Your task to perform on an android device: turn off improve location accuracy Image 0: 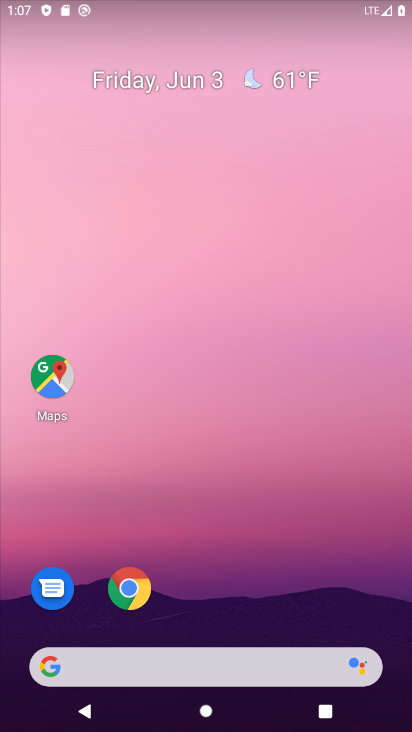
Step 0: press home button
Your task to perform on an android device: turn off improve location accuracy Image 1: 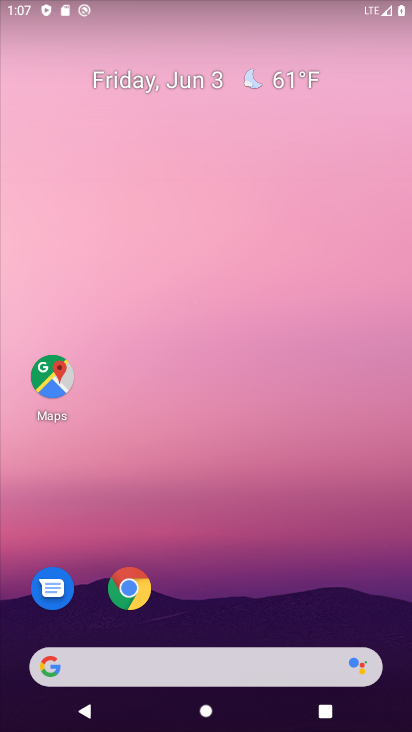
Step 1: drag from (18, 605) to (244, 180)
Your task to perform on an android device: turn off improve location accuracy Image 2: 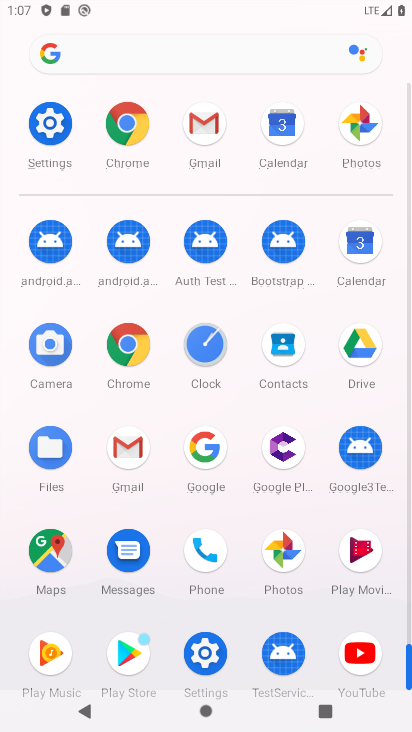
Step 2: click (53, 124)
Your task to perform on an android device: turn off improve location accuracy Image 3: 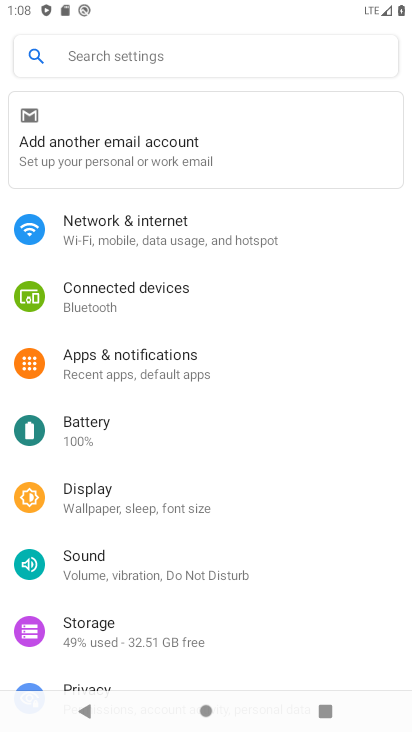
Step 3: drag from (70, 567) to (215, 163)
Your task to perform on an android device: turn off improve location accuracy Image 4: 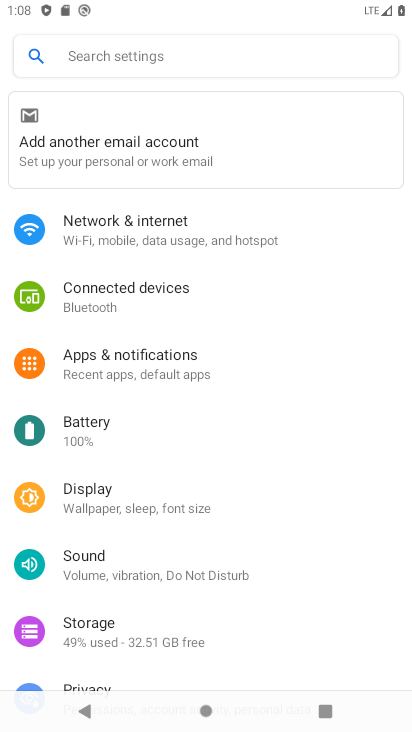
Step 4: drag from (16, 664) to (216, 157)
Your task to perform on an android device: turn off improve location accuracy Image 5: 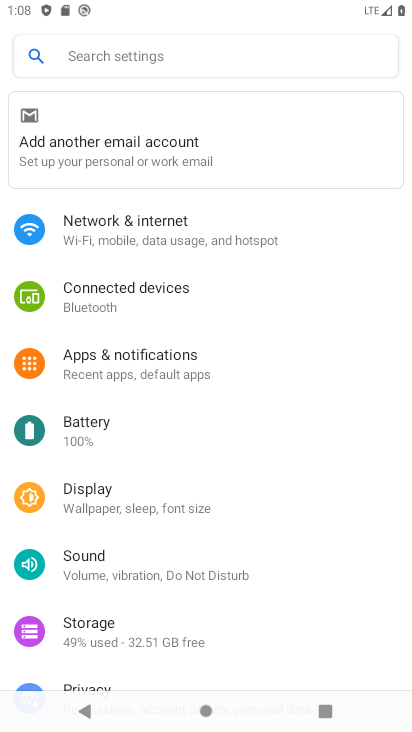
Step 5: drag from (9, 514) to (199, 137)
Your task to perform on an android device: turn off improve location accuracy Image 6: 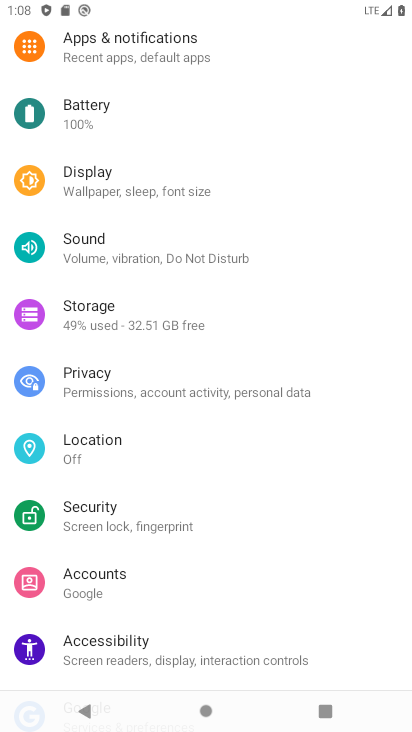
Step 6: click (118, 451)
Your task to perform on an android device: turn off improve location accuracy Image 7: 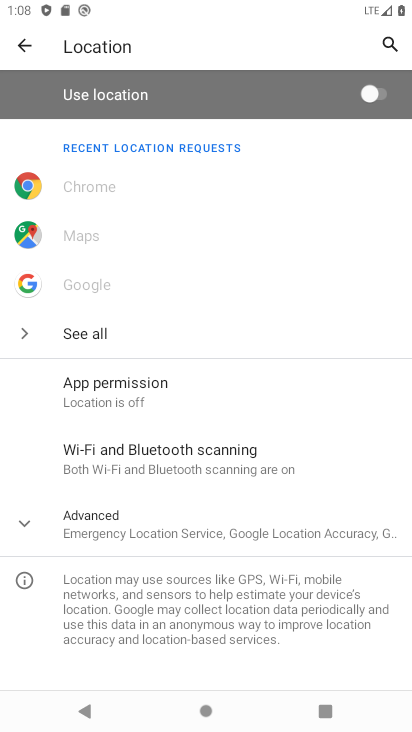
Step 7: click (118, 534)
Your task to perform on an android device: turn off improve location accuracy Image 8: 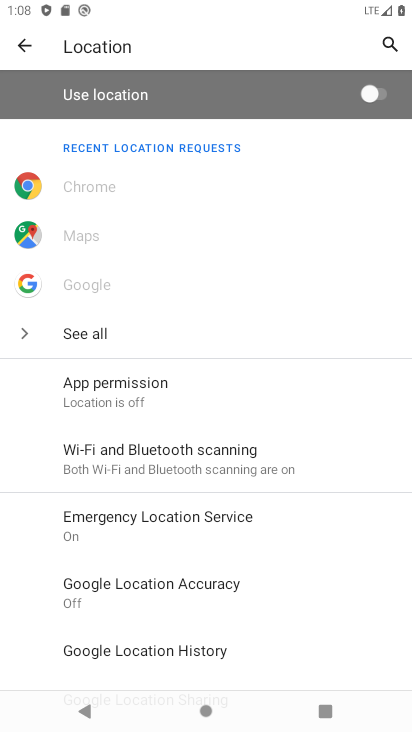
Step 8: click (145, 592)
Your task to perform on an android device: turn off improve location accuracy Image 9: 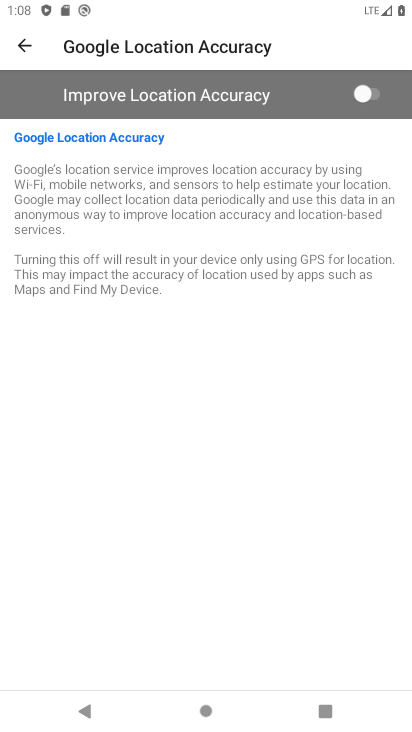
Step 9: task complete